Your task to perform on an android device: turn on showing notifications on the lock screen Image 0: 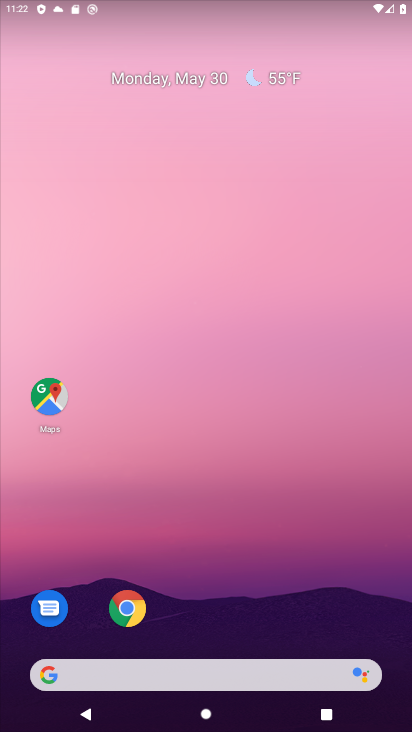
Step 0: drag from (309, 634) to (411, 499)
Your task to perform on an android device: turn on showing notifications on the lock screen Image 1: 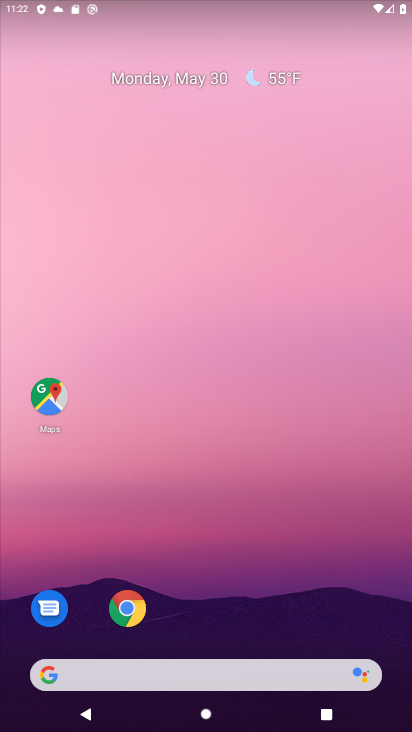
Step 1: drag from (203, 627) to (159, 0)
Your task to perform on an android device: turn on showing notifications on the lock screen Image 2: 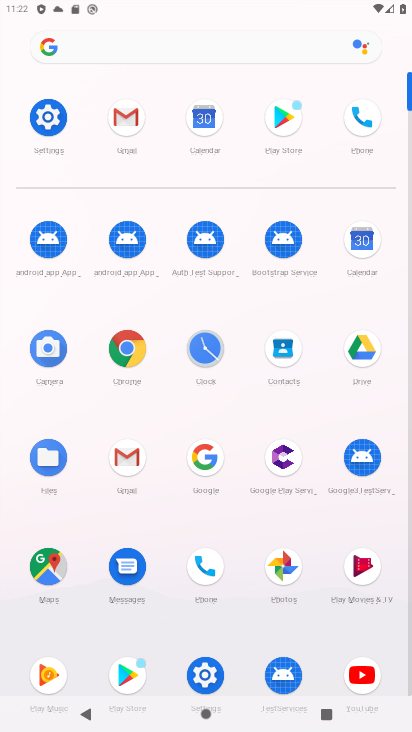
Step 2: click (46, 114)
Your task to perform on an android device: turn on showing notifications on the lock screen Image 3: 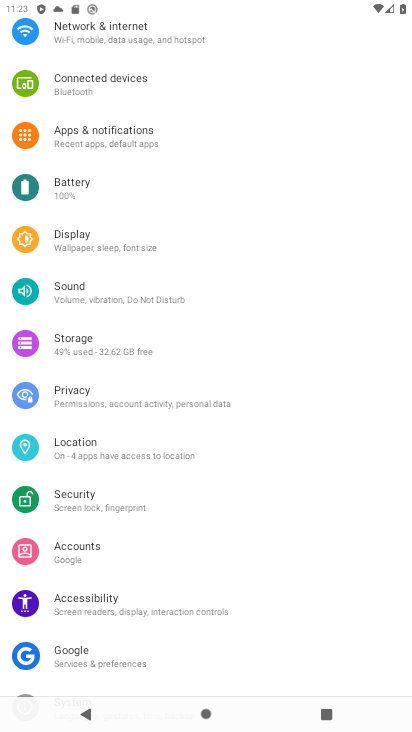
Step 3: click (111, 138)
Your task to perform on an android device: turn on showing notifications on the lock screen Image 4: 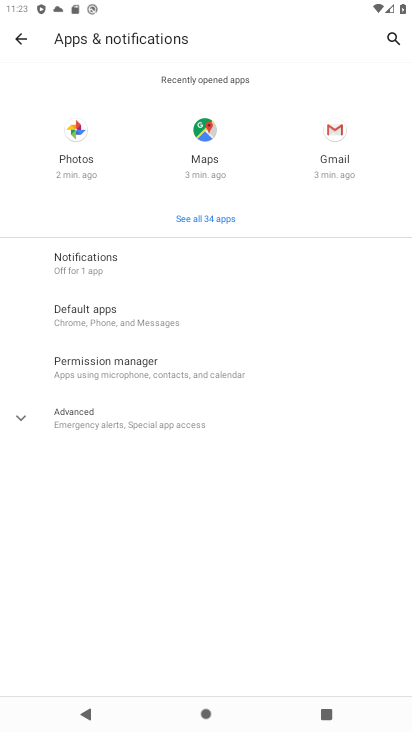
Step 4: click (85, 272)
Your task to perform on an android device: turn on showing notifications on the lock screen Image 5: 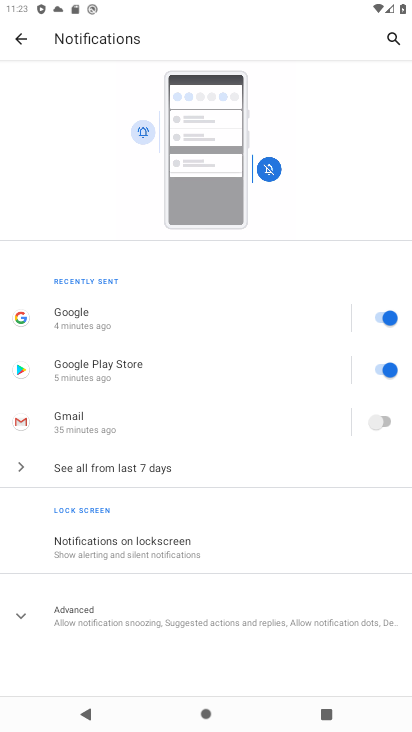
Step 5: click (114, 546)
Your task to perform on an android device: turn on showing notifications on the lock screen Image 6: 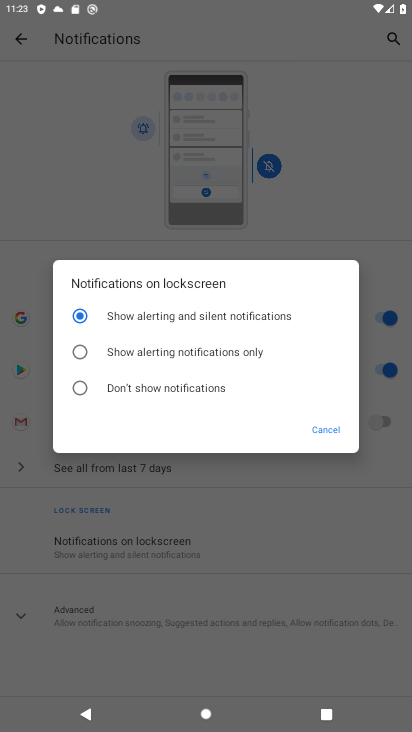
Step 6: task complete